Your task to perform on an android device: turn vacation reply on in the gmail app Image 0: 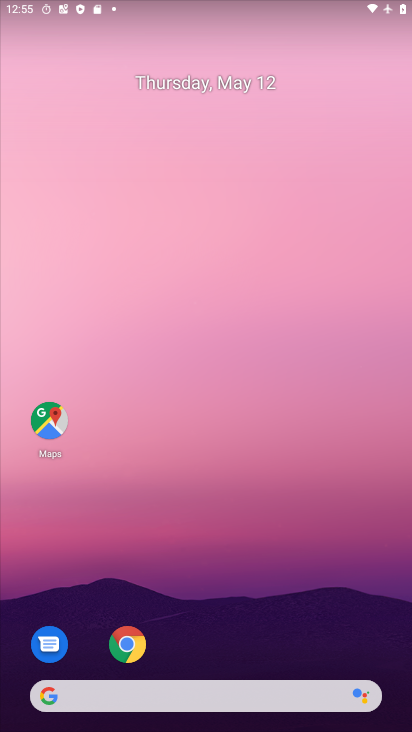
Step 0: drag from (258, 573) to (223, 115)
Your task to perform on an android device: turn vacation reply on in the gmail app Image 1: 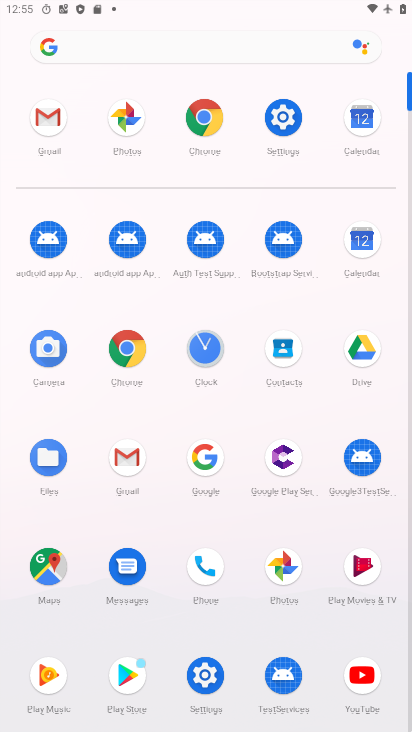
Step 1: click (128, 456)
Your task to perform on an android device: turn vacation reply on in the gmail app Image 2: 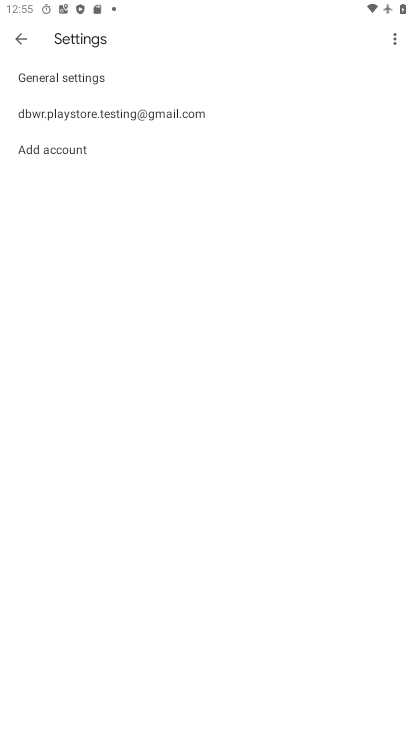
Step 2: click (19, 44)
Your task to perform on an android device: turn vacation reply on in the gmail app Image 3: 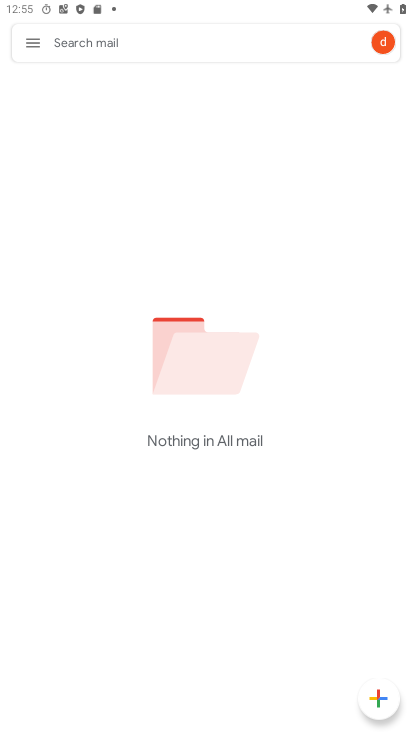
Step 3: click (33, 50)
Your task to perform on an android device: turn vacation reply on in the gmail app Image 4: 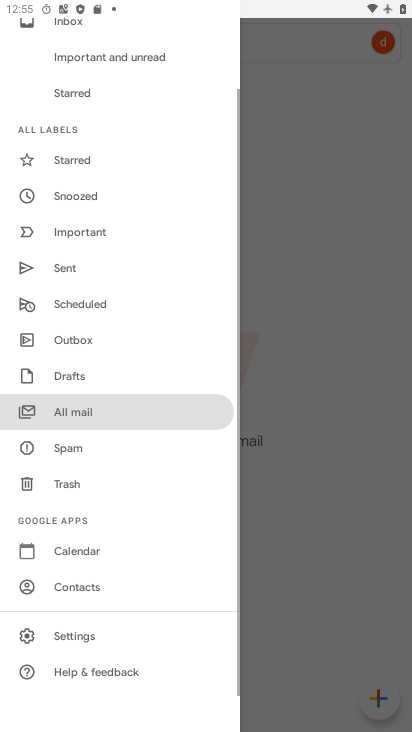
Step 4: drag from (146, 643) to (124, 330)
Your task to perform on an android device: turn vacation reply on in the gmail app Image 5: 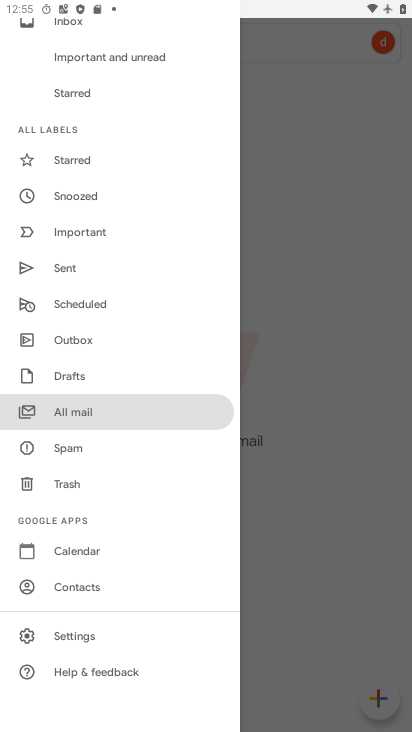
Step 5: click (78, 637)
Your task to perform on an android device: turn vacation reply on in the gmail app Image 6: 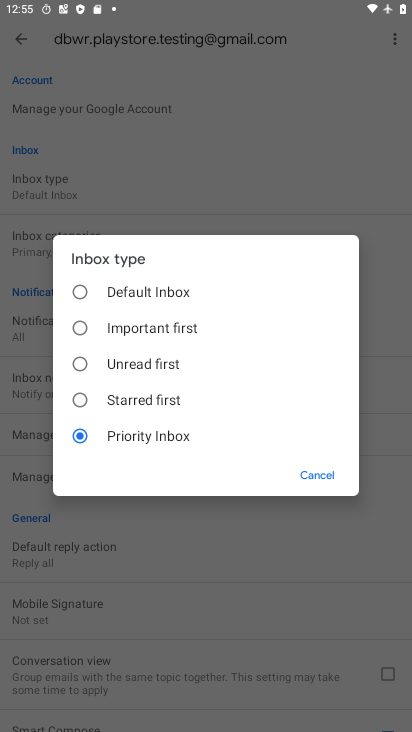
Step 6: click (313, 470)
Your task to perform on an android device: turn vacation reply on in the gmail app Image 7: 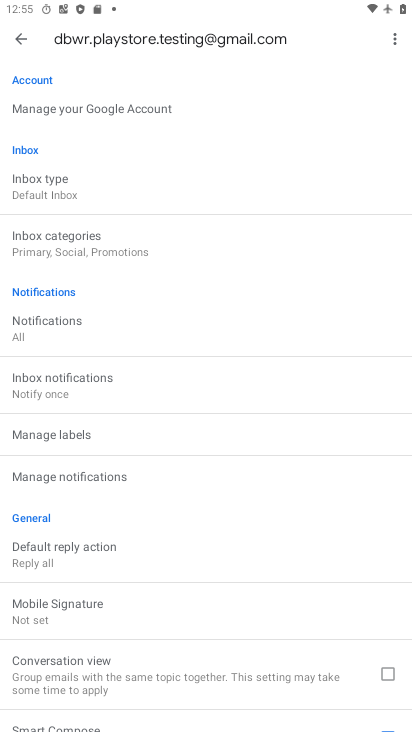
Step 7: drag from (164, 613) to (205, 258)
Your task to perform on an android device: turn vacation reply on in the gmail app Image 8: 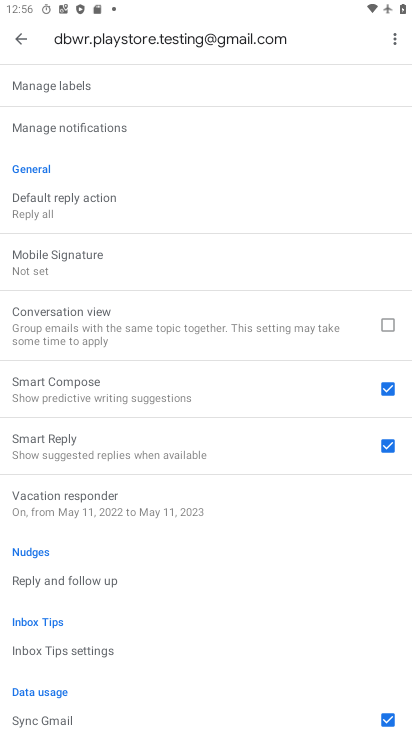
Step 8: click (71, 496)
Your task to perform on an android device: turn vacation reply on in the gmail app Image 9: 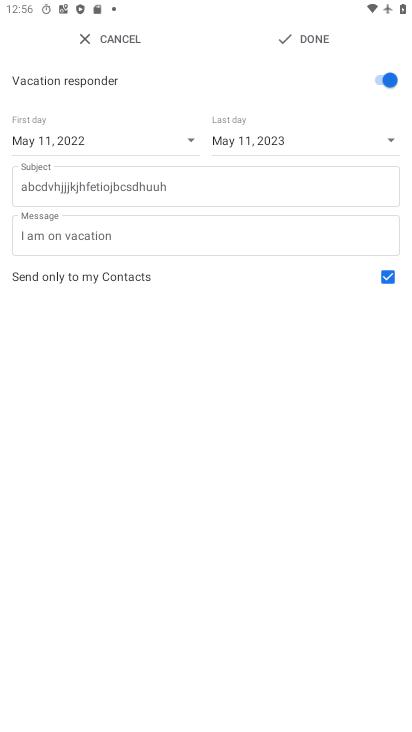
Step 9: click (331, 35)
Your task to perform on an android device: turn vacation reply on in the gmail app Image 10: 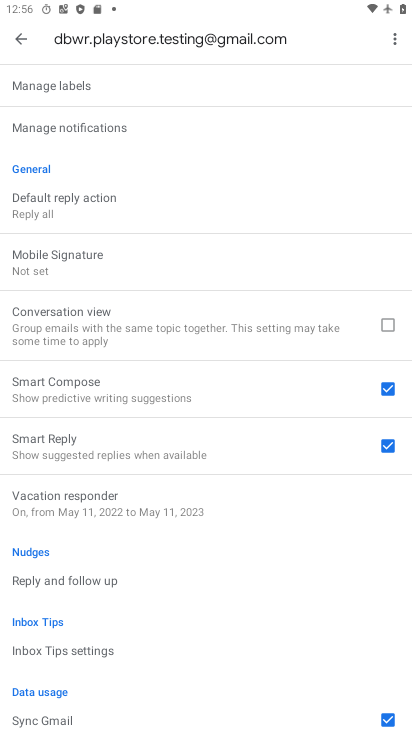
Step 10: task complete